Your task to perform on an android device: toggle translation in the chrome app Image 0: 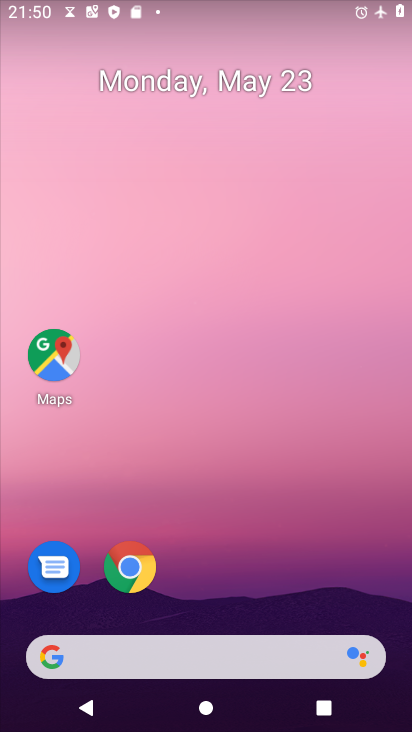
Step 0: drag from (263, 593) to (258, 200)
Your task to perform on an android device: toggle translation in the chrome app Image 1: 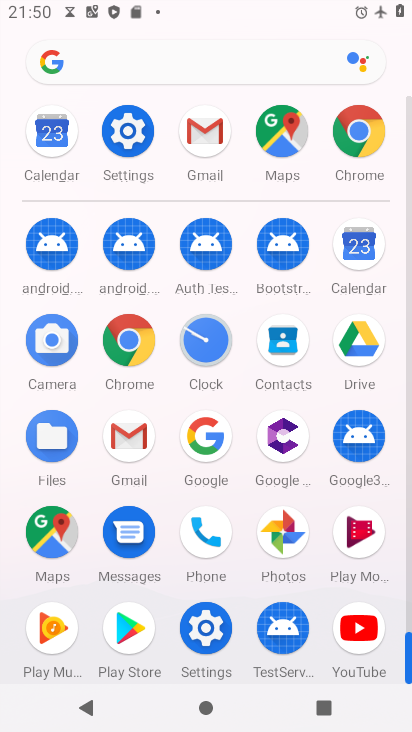
Step 1: click (130, 337)
Your task to perform on an android device: toggle translation in the chrome app Image 2: 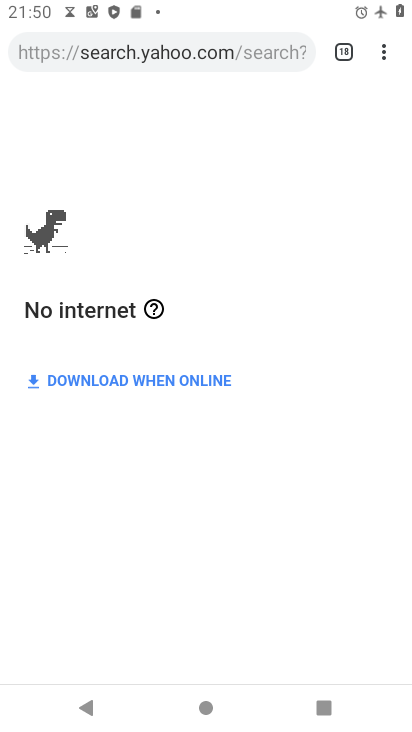
Step 2: click (383, 58)
Your task to perform on an android device: toggle translation in the chrome app Image 3: 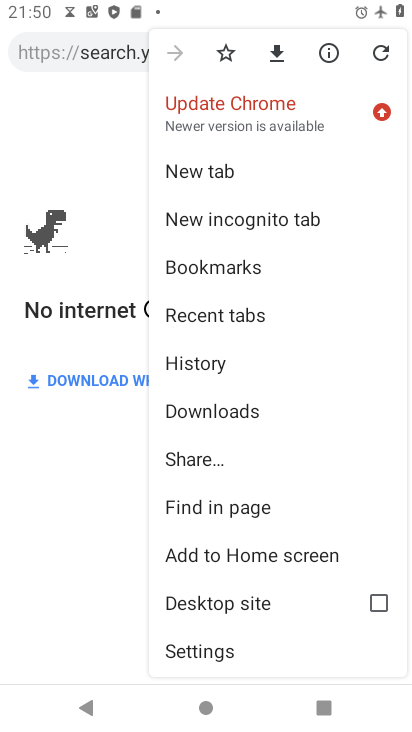
Step 3: click (242, 650)
Your task to perform on an android device: toggle translation in the chrome app Image 4: 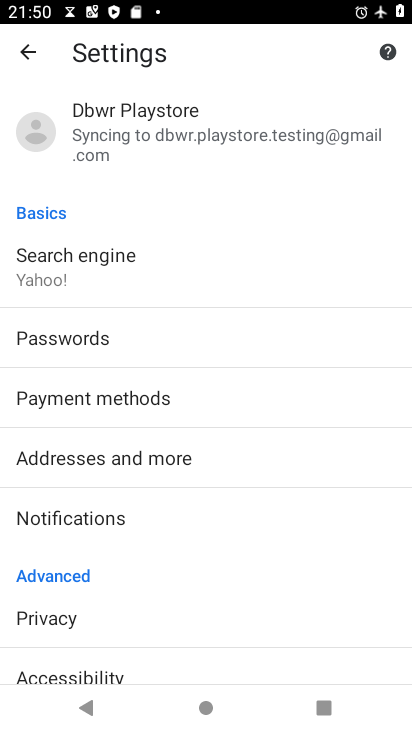
Step 4: drag from (185, 606) to (227, 237)
Your task to perform on an android device: toggle translation in the chrome app Image 5: 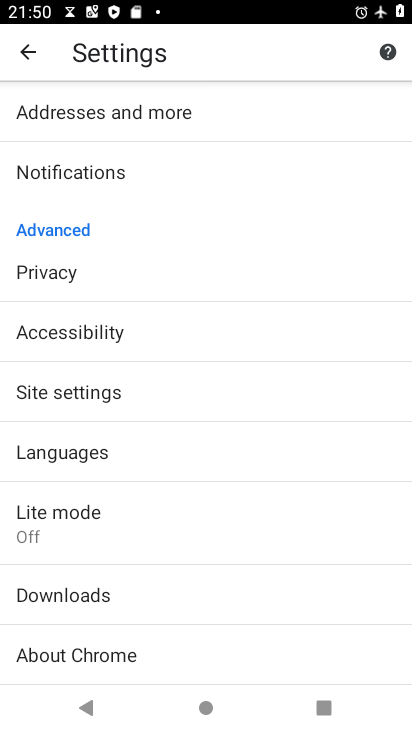
Step 5: click (117, 451)
Your task to perform on an android device: toggle translation in the chrome app Image 6: 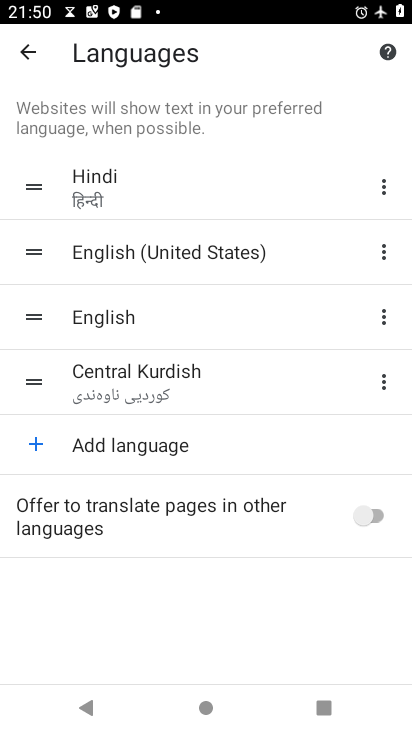
Step 6: click (376, 508)
Your task to perform on an android device: toggle translation in the chrome app Image 7: 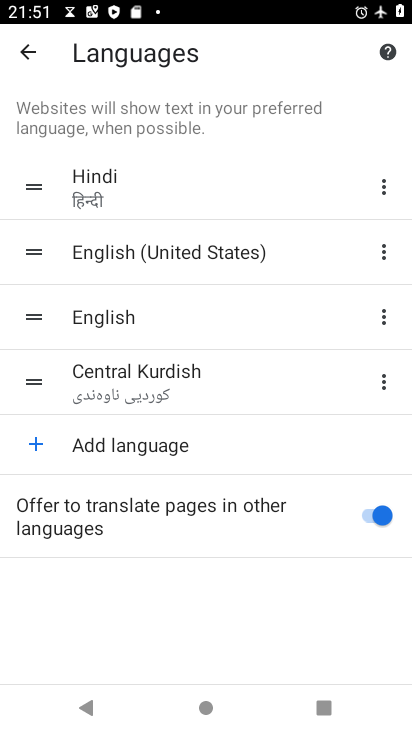
Step 7: task complete